Your task to perform on an android device: turn off notifications settings in the gmail app Image 0: 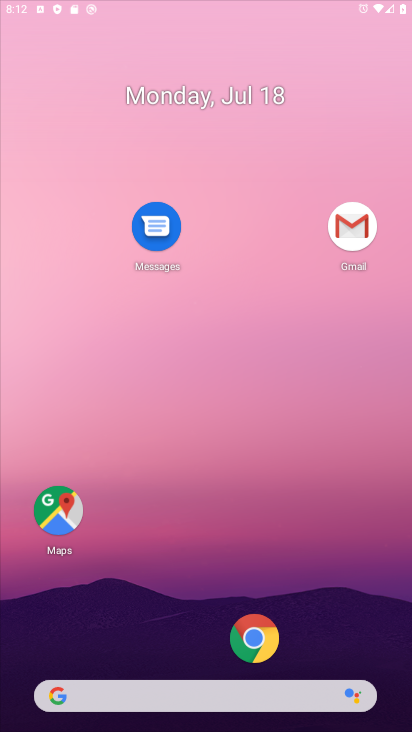
Step 0: press home button
Your task to perform on an android device: turn off notifications settings in the gmail app Image 1: 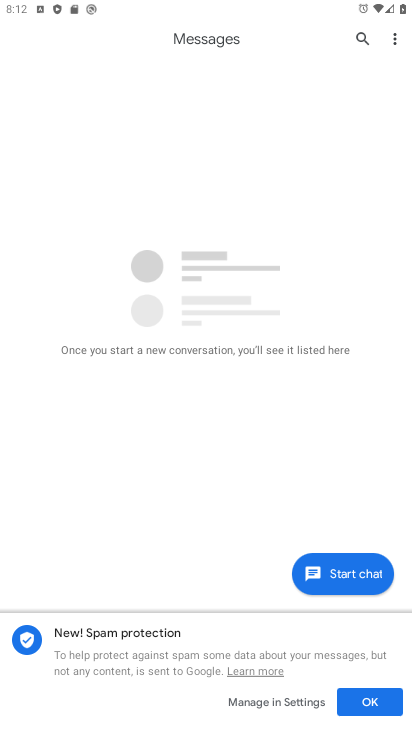
Step 1: drag from (225, 141) to (225, 29)
Your task to perform on an android device: turn off notifications settings in the gmail app Image 2: 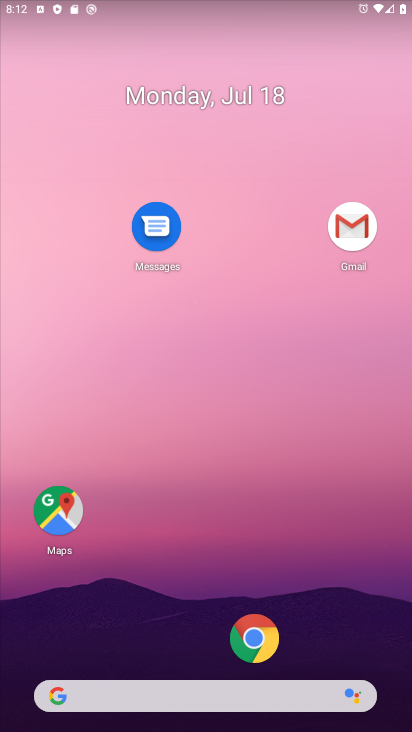
Step 2: drag from (202, 639) to (256, 3)
Your task to perform on an android device: turn off notifications settings in the gmail app Image 3: 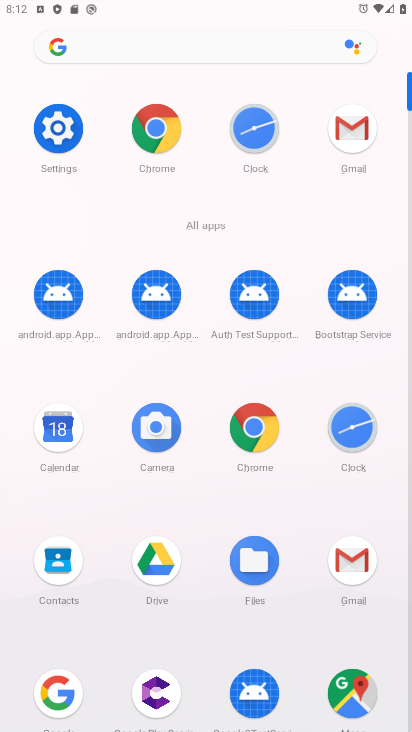
Step 3: click (48, 120)
Your task to perform on an android device: turn off notifications settings in the gmail app Image 4: 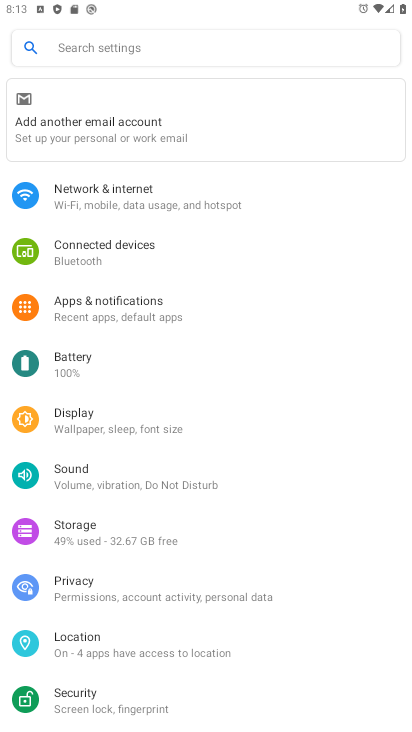
Step 4: click (83, 46)
Your task to perform on an android device: turn off notifications settings in the gmail app Image 5: 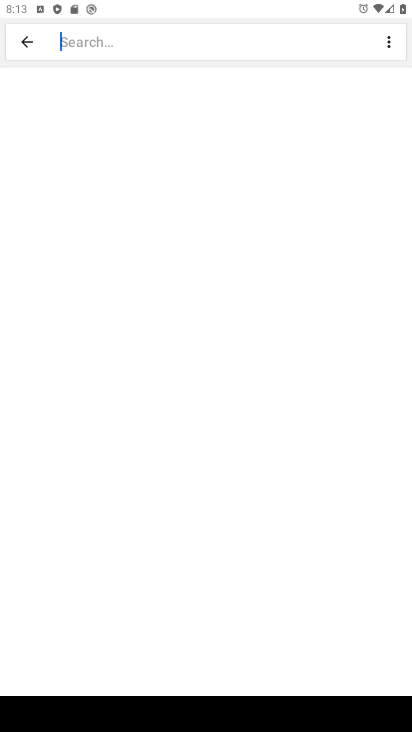
Step 5: type "flashlight"
Your task to perform on an android device: turn off notifications settings in the gmail app Image 6: 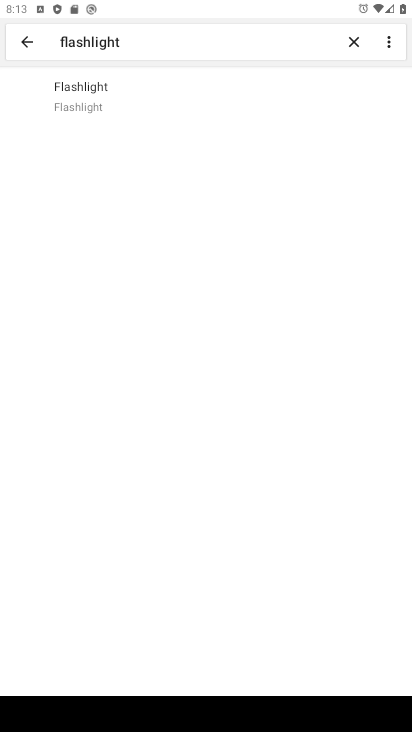
Step 6: click (91, 85)
Your task to perform on an android device: turn off notifications settings in the gmail app Image 7: 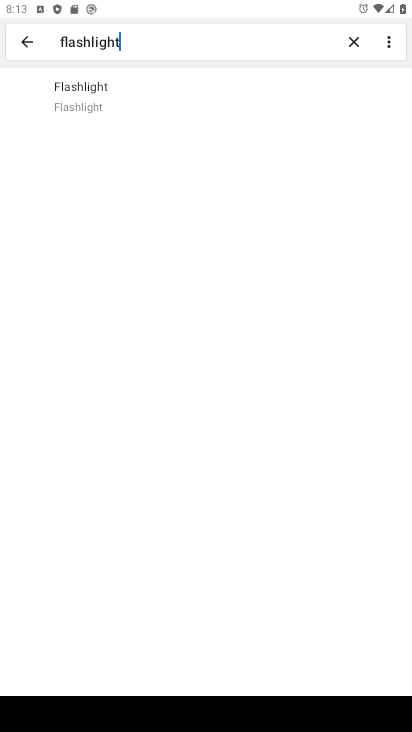
Step 7: task complete